Your task to perform on an android device: open sync settings in chrome Image 0: 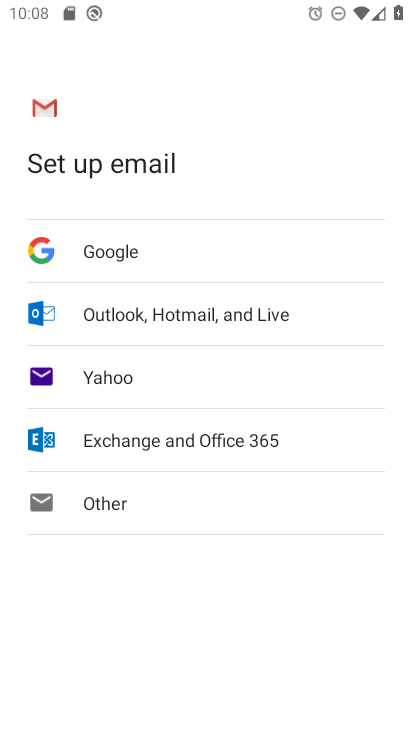
Step 0: press home button
Your task to perform on an android device: open sync settings in chrome Image 1: 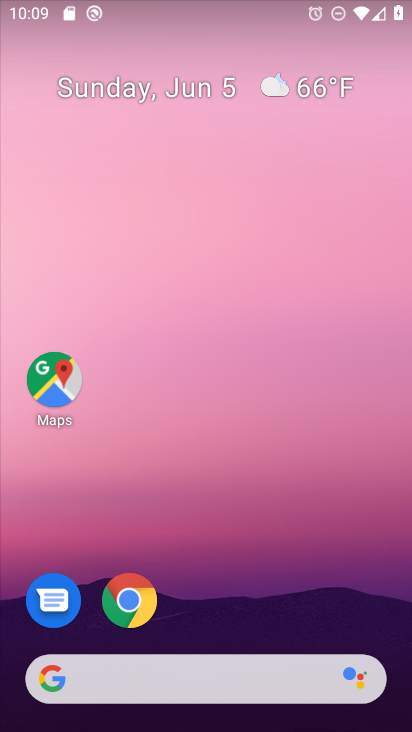
Step 1: drag from (401, 650) to (299, 66)
Your task to perform on an android device: open sync settings in chrome Image 2: 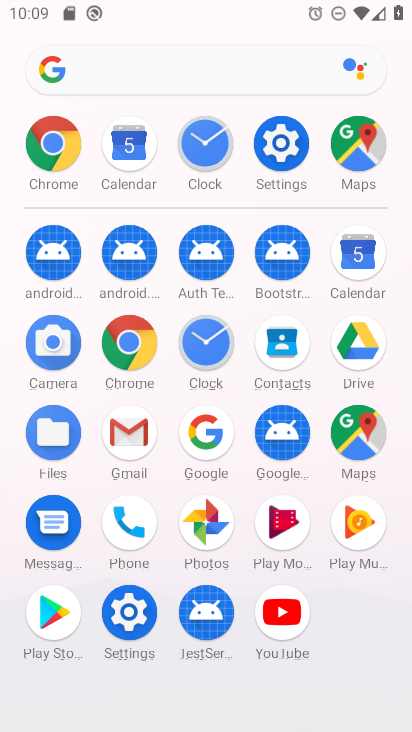
Step 2: click (122, 349)
Your task to perform on an android device: open sync settings in chrome Image 3: 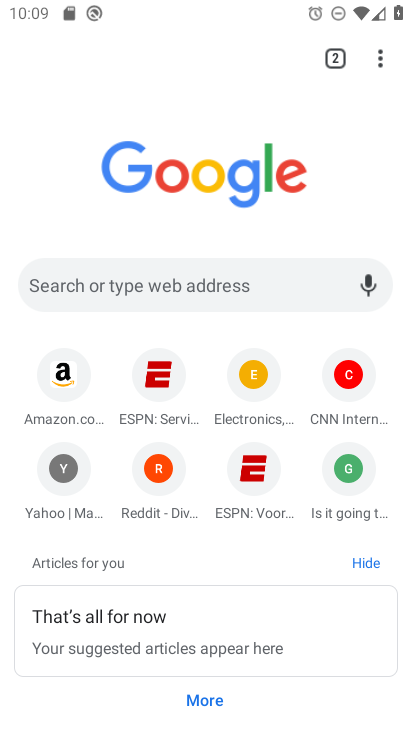
Step 3: click (387, 59)
Your task to perform on an android device: open sync settings in chrome Image 4: 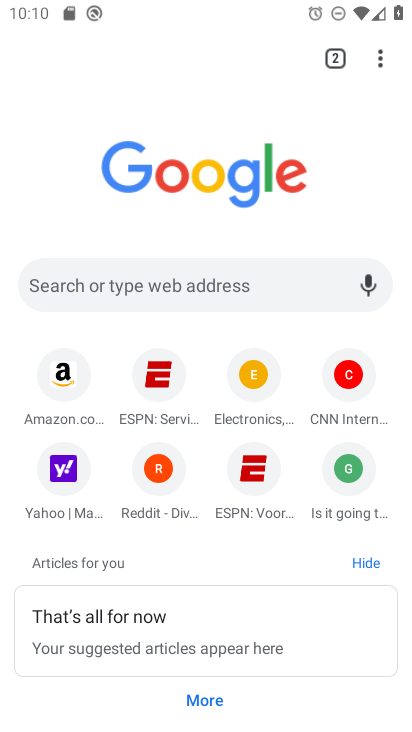
Step 4: click (381, 54)
Your task to perform on an android device: open sync settings in chrome Image 5: 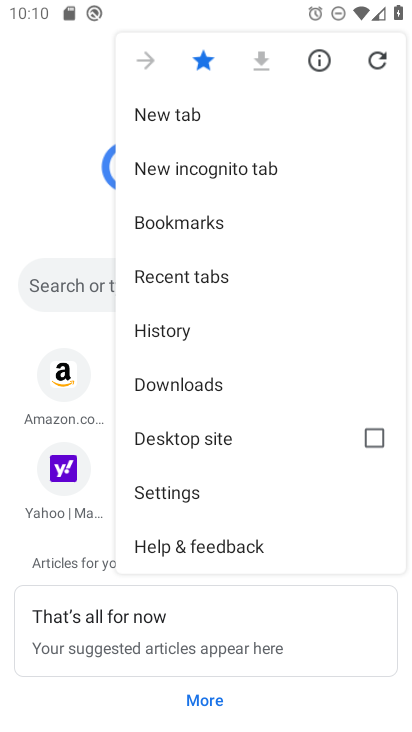
Step 5: click (220, 508)
Your task to perform on an android device: open sync settings in chrome Image 6: 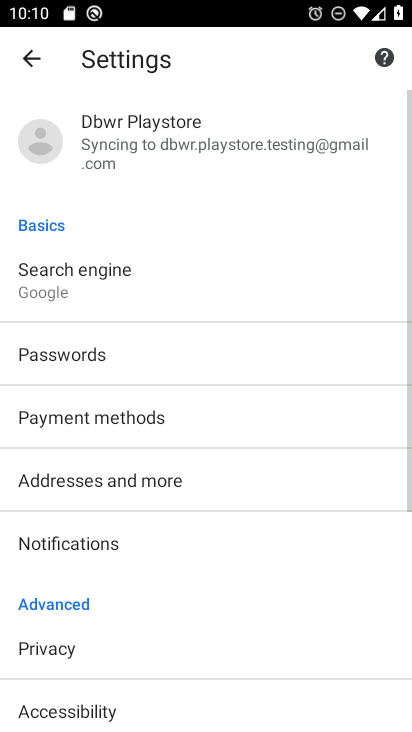
Step 6: drag from (52, 702) to (131, 274)
Your task to perform on an android device: open sync settings in chrome Image 7: 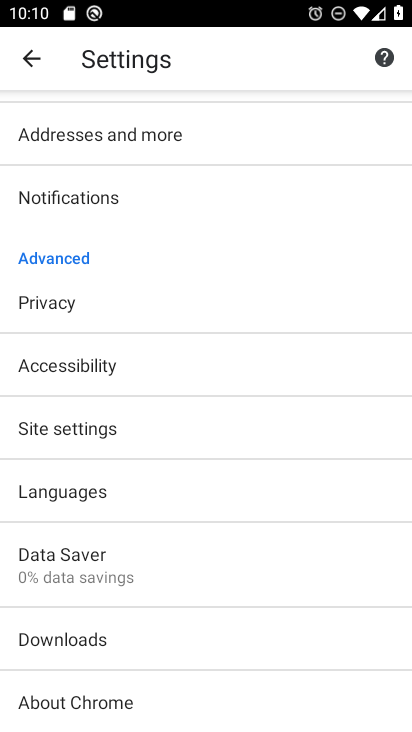
Step 7: click (60, 442)
Your task to perform on an android device: open sync settings in chrome Image 8: 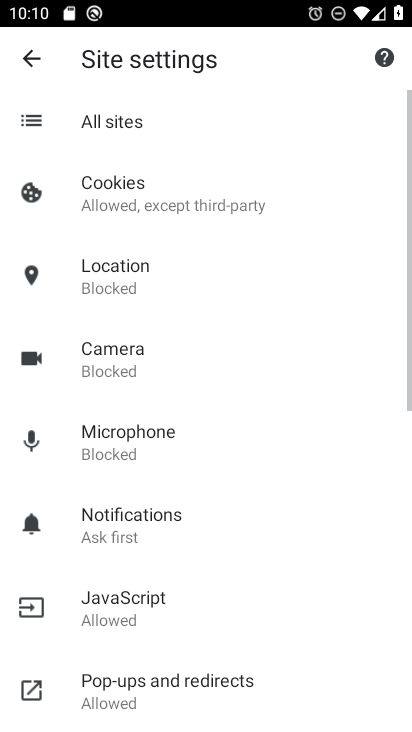
Step 8: drag from (184, 691) to (215, 324)
Your task to perform on an android device: open sync settings in chrome Image 9: 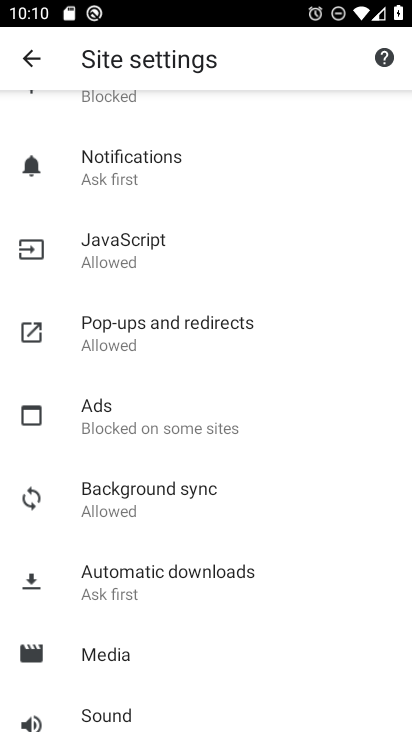
Step 9: click (114, 528)
Your task to perform on an android device: open sync settings in chrome Image 10: 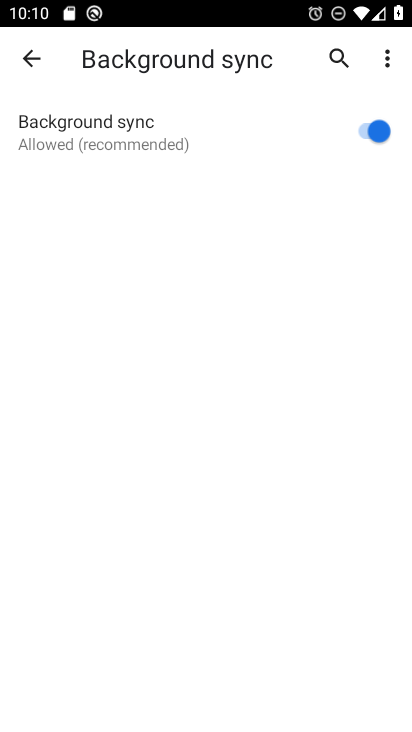
Step 10: task complete